Your task to perform on an android device: turn on airplane mode Image 0: 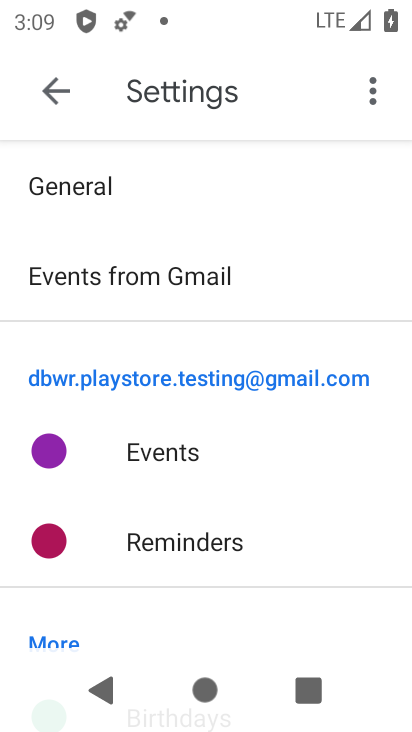
Step 0: press home button
Your task to perform on an android device: turn on airplane mode Image 1: 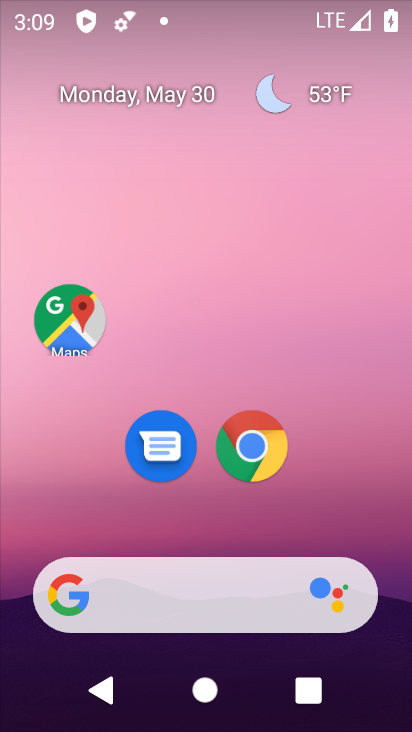
Step 1: drag from (304, 529) to (236, 44)
Your task to perform on an android device: turn on airplane mode Image 2: 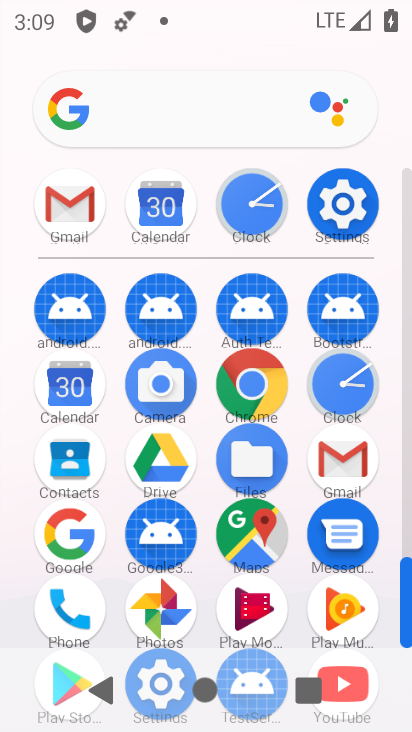
Step 2: click (343, 204)
Your task to perform on an android device: turn on airplane mode Image 3: 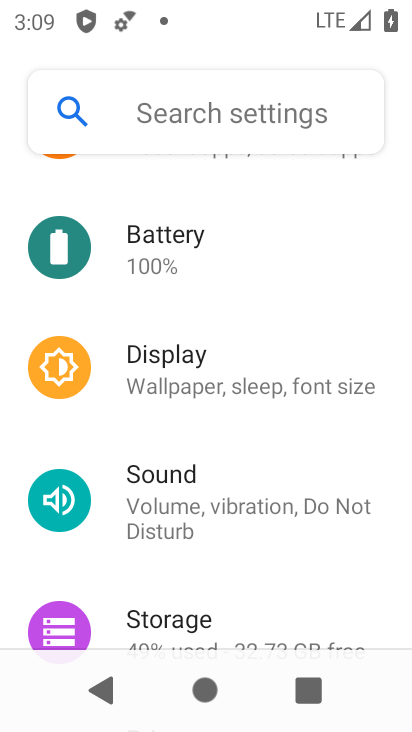
Step 3: drag from (252, 286) to (237, 408)
Your task to perform on an android device: turn on airplane mode Image 4: 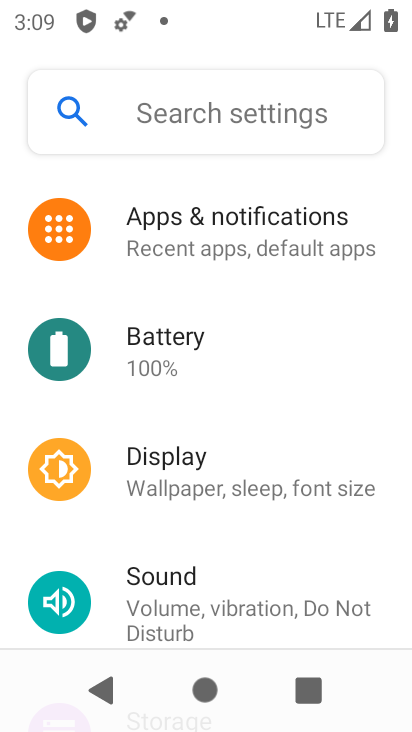
Step 4: drag from (214, 299) to (214, 428)
Your task to perform on an android device: turn on airplane mode Image 5: 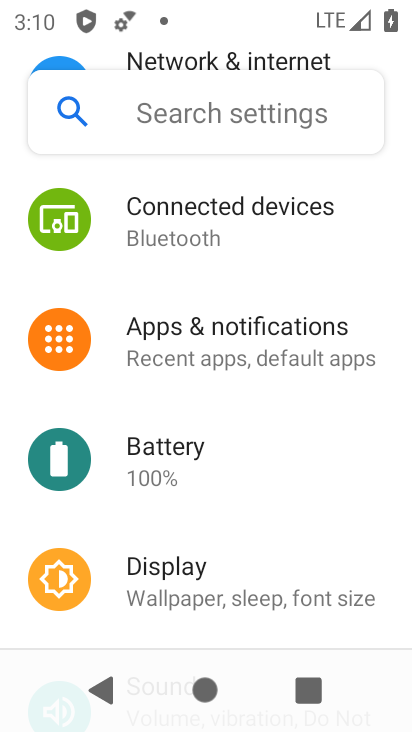
Step 5: drag from (219, 264) to (235, 411)
Your task to perform on an android device: turn on airplane mode Image 6: 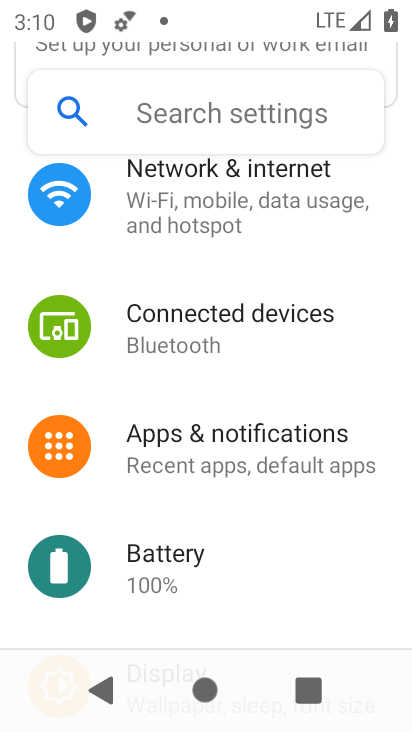
Step 6: drag from (249, 254) to (223, 466)
Your task to perform on an android device: turn on airplane mode Image 7: 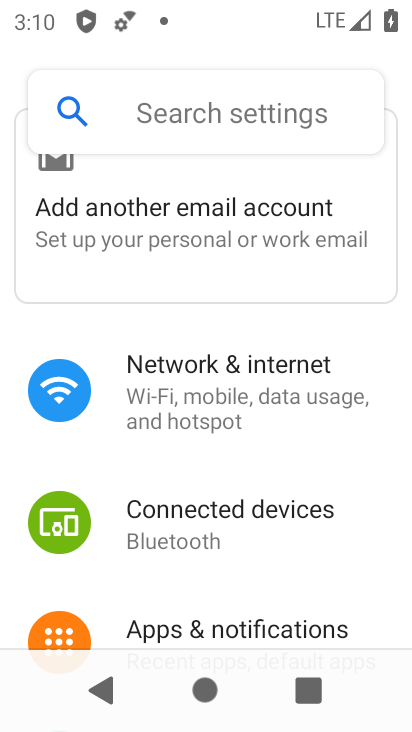
Step 7: click (246, 372)
Your task to perform on an android device: turn on airplane mode Image 8: 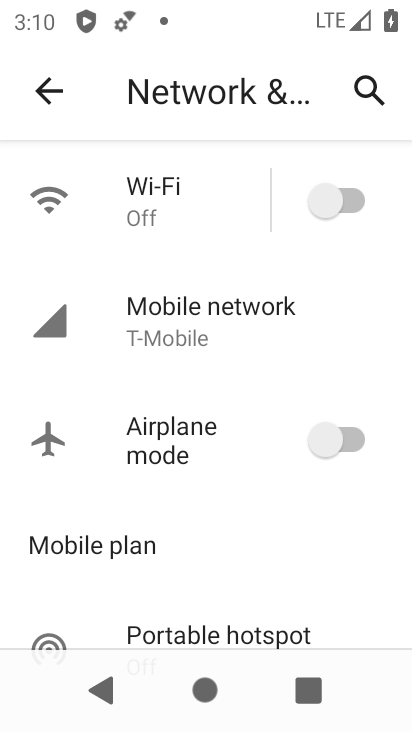
Step 8: click (337, 444)
Your task to perform on an android device: turn on airplane mode Image 9: 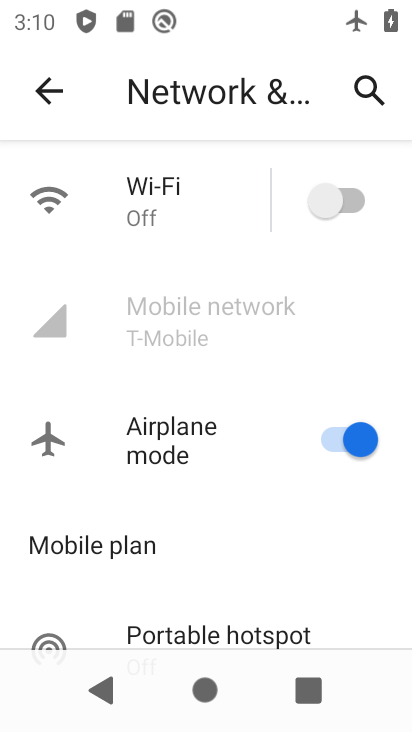
Step 9: task complete